Your task to perform on an android device: What's on my calendar today? Image 0: 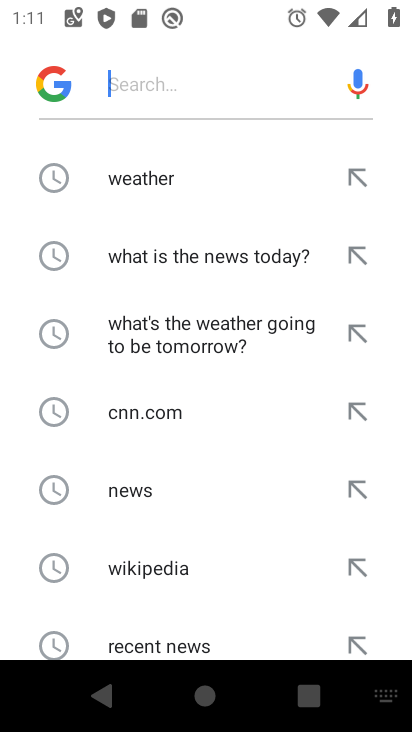
Step 0: task complete